Your task to perform on an android device: see creations saved in the google photos Image 0: 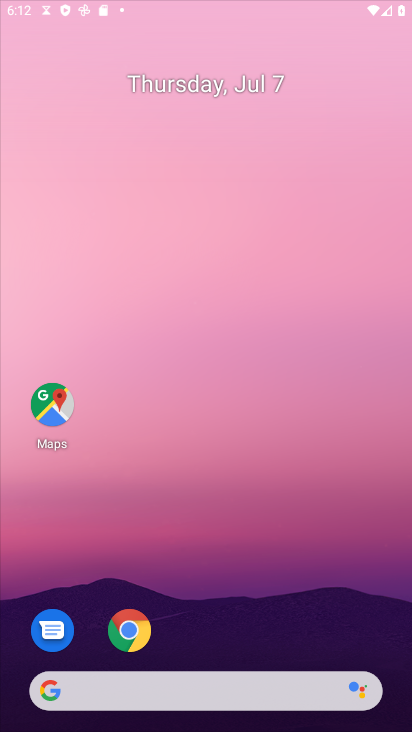
Step 0: click (246, 160)
Your task to perform on an android device: see creations saved in the google photos Image 1: 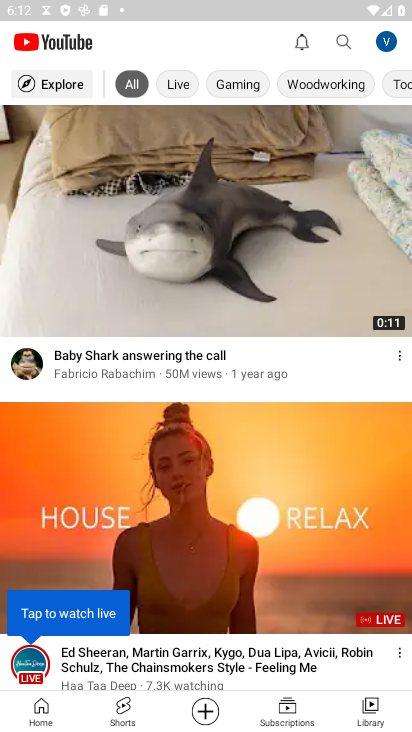
Step 1: press home button
Your task to perform on an android device: see creations saved in the google photos Image 2: 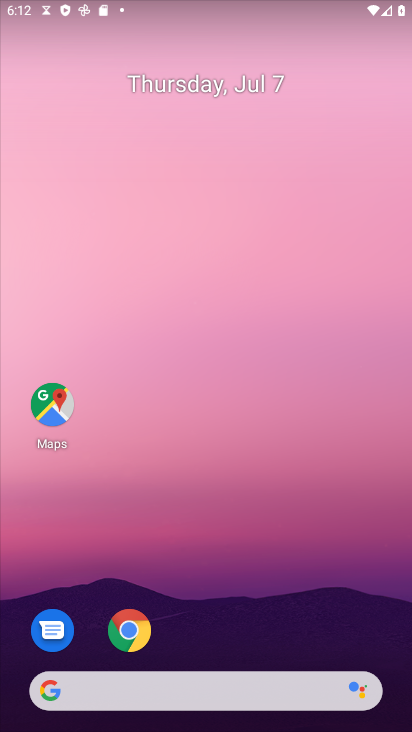
Step 2: drag from (204, 439) to (254, 128)
Your task to perform on an android device: see creations saved in the google photos Image 3: 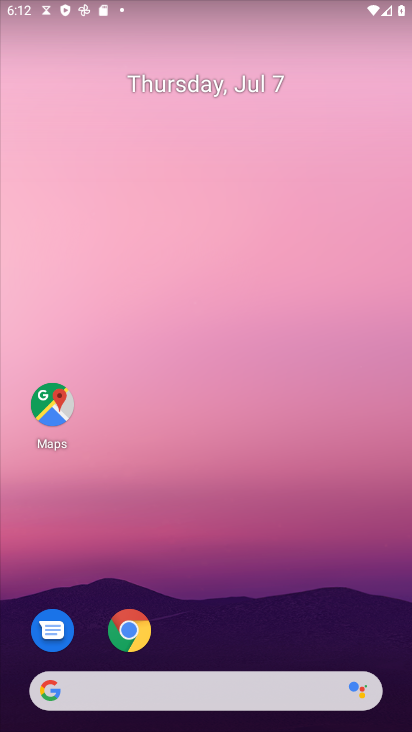
Step 3: drag from (190, 417) to (188, 90)
Your task to perform on an android device: see creations saved in the google photos Image 4: 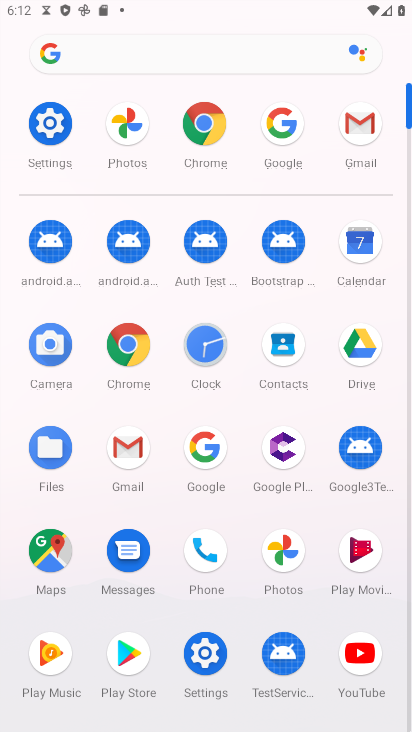
Step 4: click (272, 569)
Your task to perform on an android device: see creations saved in the google photos Image 5: 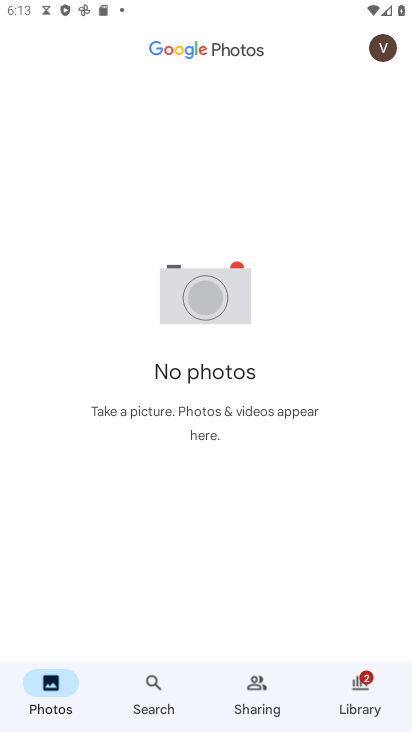
Step 5: click (142, 689)
Your task to perform on an android device: see creations saved in the google photos Image 6: 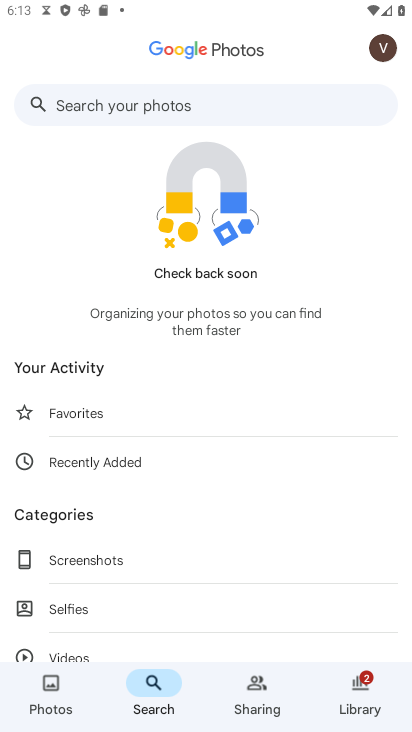
Step 6: drag from (74, 532) to (86, 440)
Your task to perform on an android device: see creations saved in the google photos Image 7: 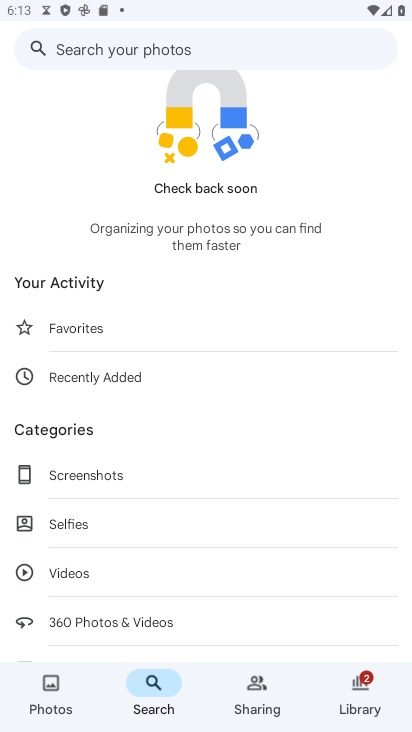
Step 7: click (134, 46)
Your task to perform on an android device: see creations saved in the google photos Image 8: 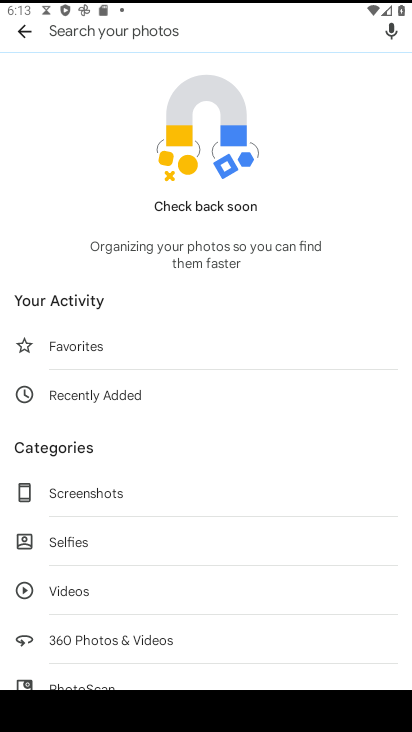
Step 8: task complete